Your task to perform on an android device: Open display settings Image 0: 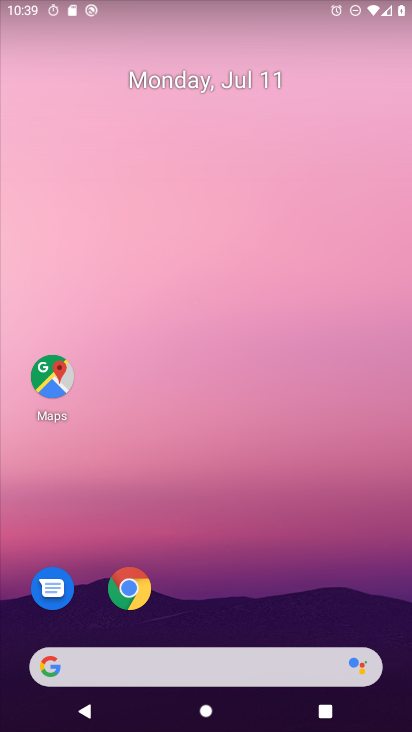
Step 0: drag from (198, 586) to (280, 54)
Your task to perform on an android device: Open display settings Image 1: 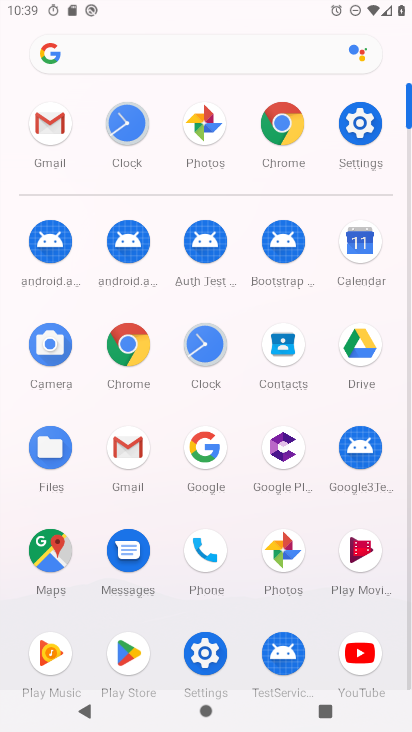
Step 1: click (373, 135)
Your task to perform on an android device: Open display settings Image 2: 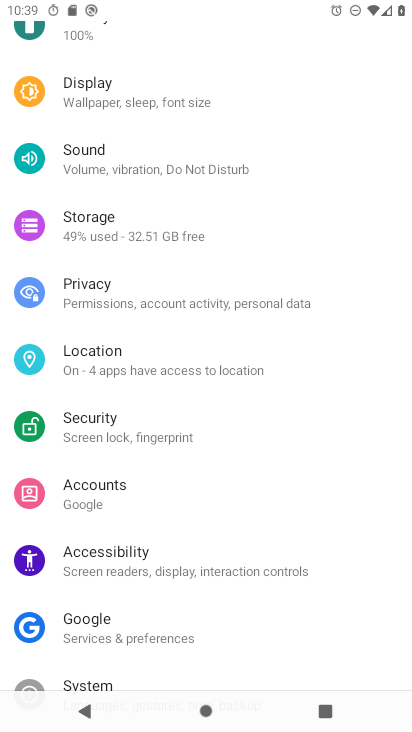
Step 2: click (155, 100)
Your task to perform on an android device: Open display settings Image 3: 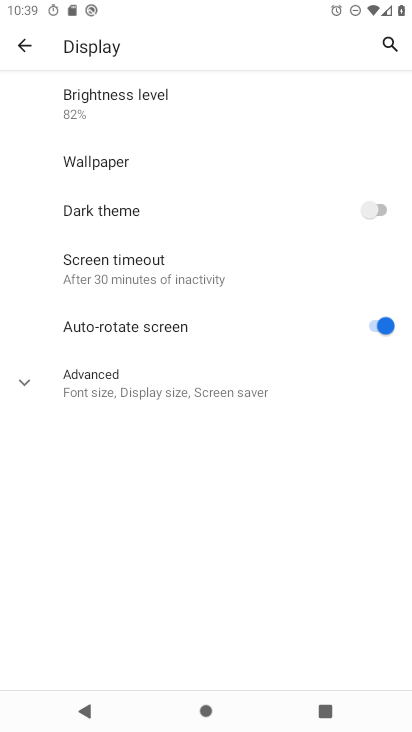
Step 3: task complete